Your task to perform on an android device: Show me recent news Image 0: 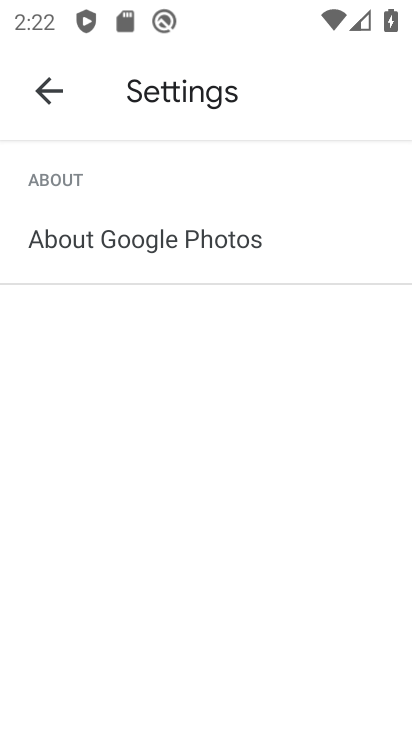
Step 0: press back button
Your task to perform on an android device: Show me recent news Image 1: 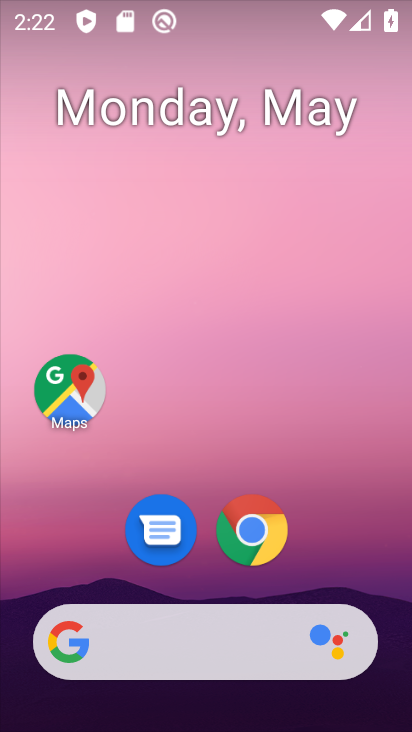
Step 1: click (166, 634)
Your task to perform on an android device: Show me recent news Image 2: 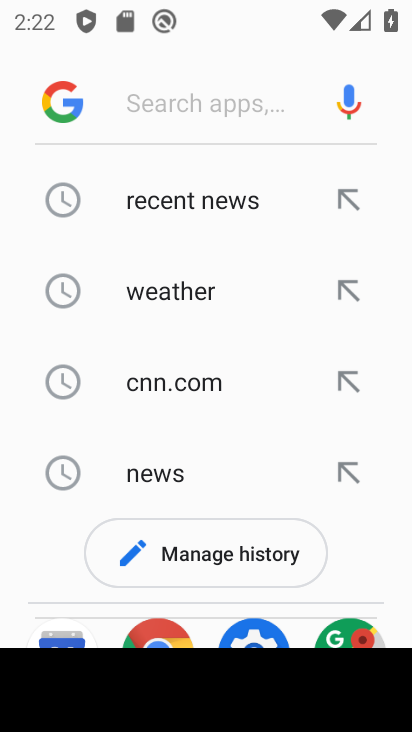
Step 2: click (166, 200)
Your task to perform on an android device: Show me recent news Image 3: 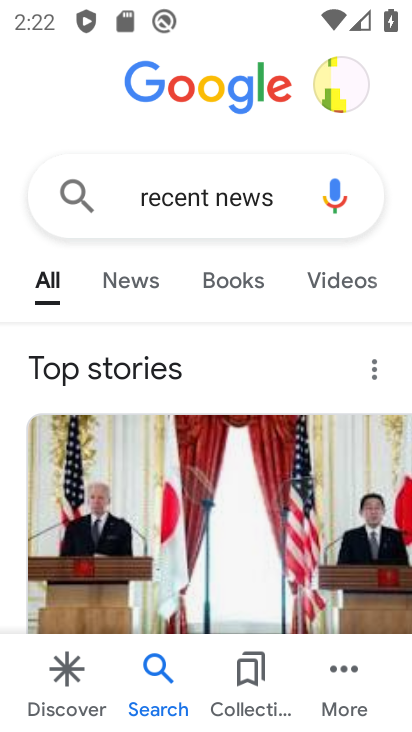
Step 3: task complete